Your task to perform on an android device: Go to Google maps Image 0: 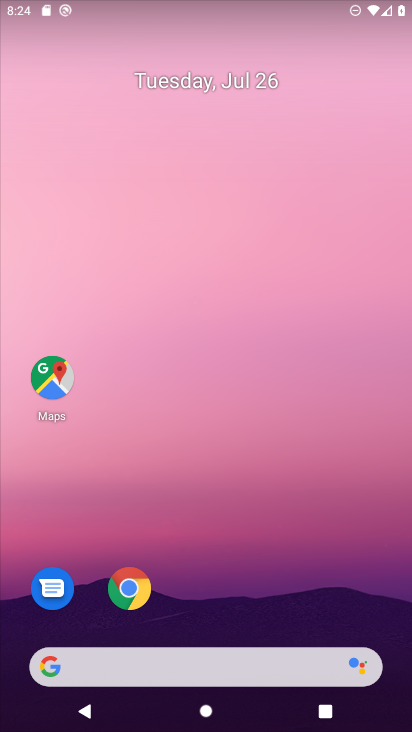
Step 0: click (52, 381)
Your task to perform on an android device: Go to Google maps Image 1: 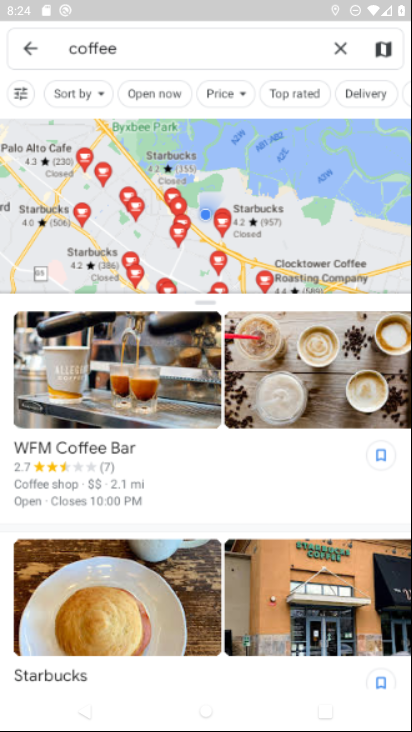
Step 1: task complete